Your task to perform on an android device: open app "AliExpress" (install if not already installed) and enter user name: "orangutan@inbox.com" and password: "Lyons" Image 0: 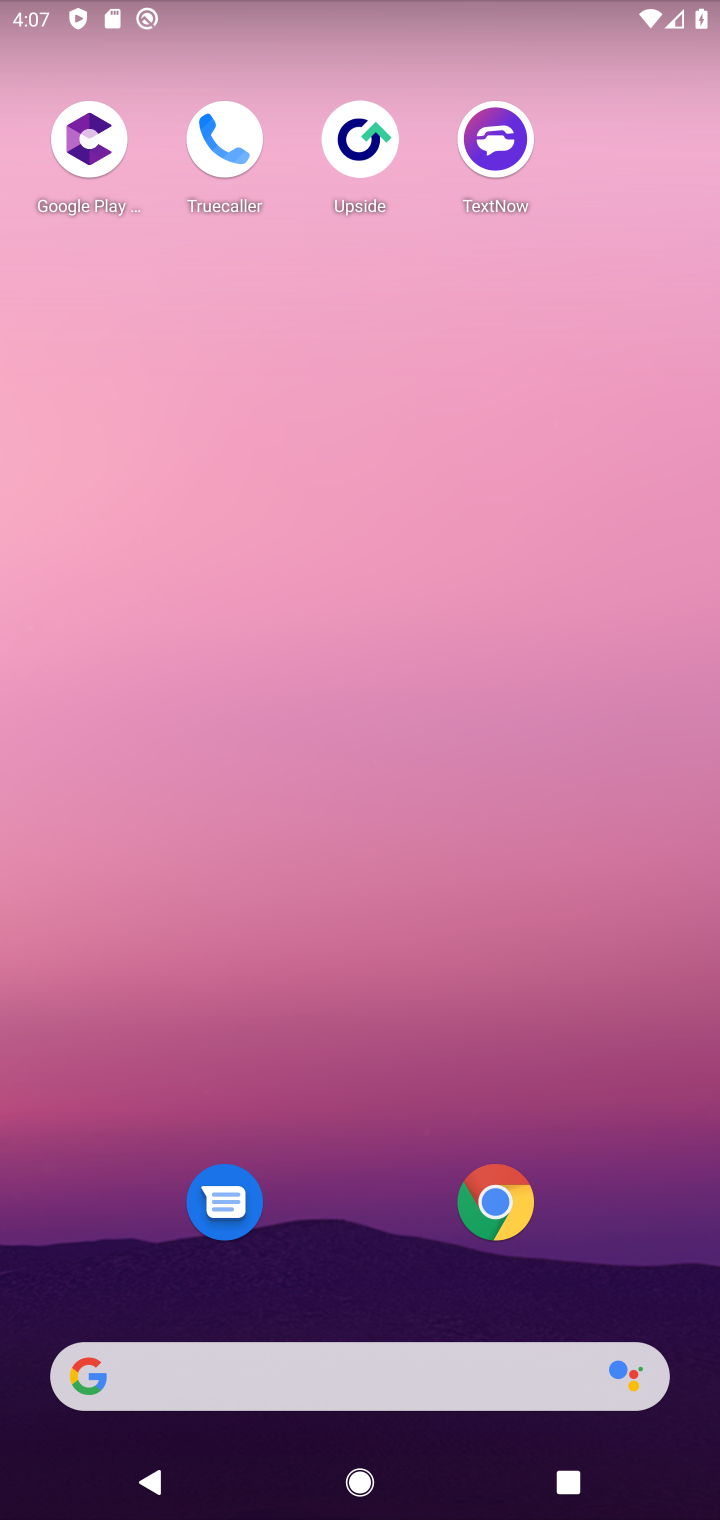
Step 0: drag from (274, 780) to (539, 0)
Your task to perform on an android device: open app "AliExpress" (install if not already installed) and enter user name: "orangutan@inbox.com" and password: "Lyons" Image 1: 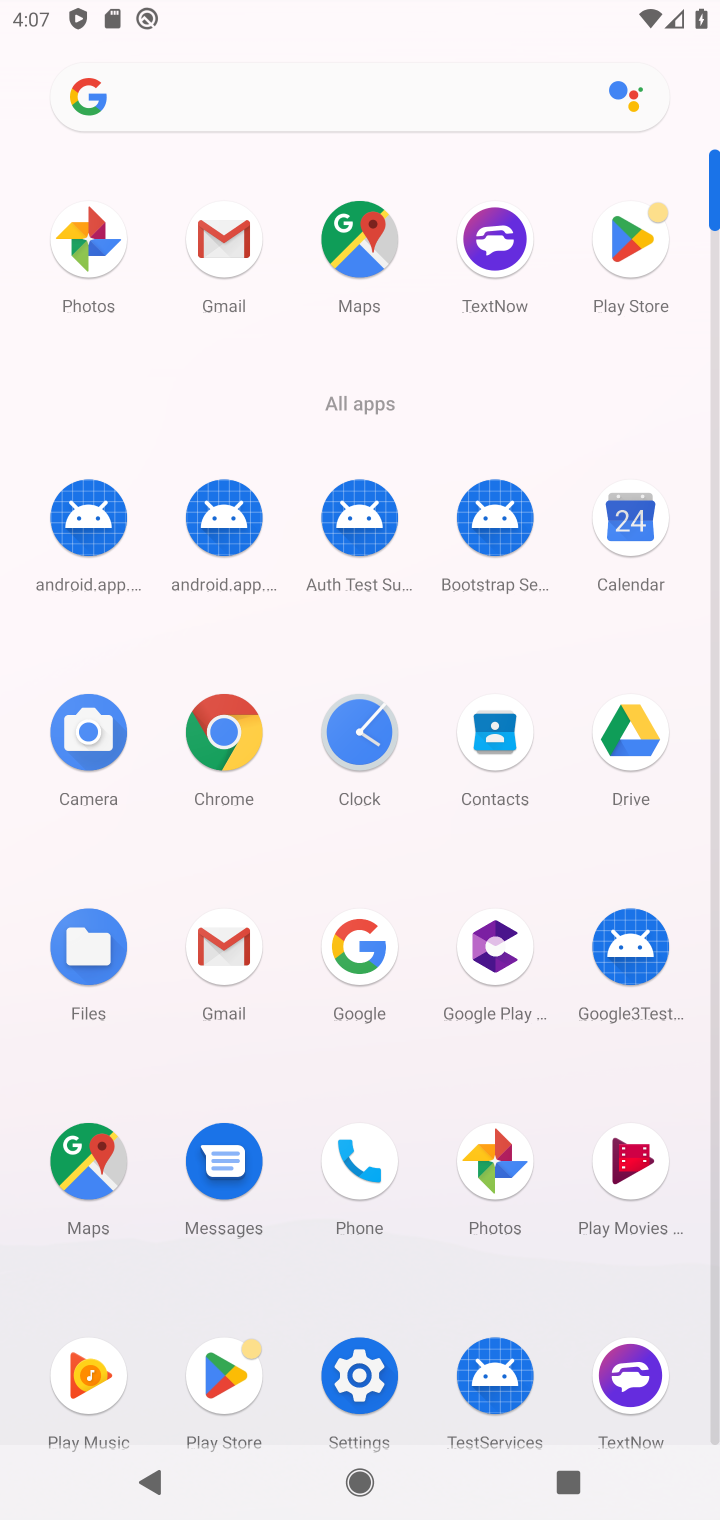
Step 1: click (635, 275)
Your task to perform on an android device: open app "AliExpress" (install if not already installed) and enter user name: "orangutan@inbox.com" and password: "Lyons" Image 2: 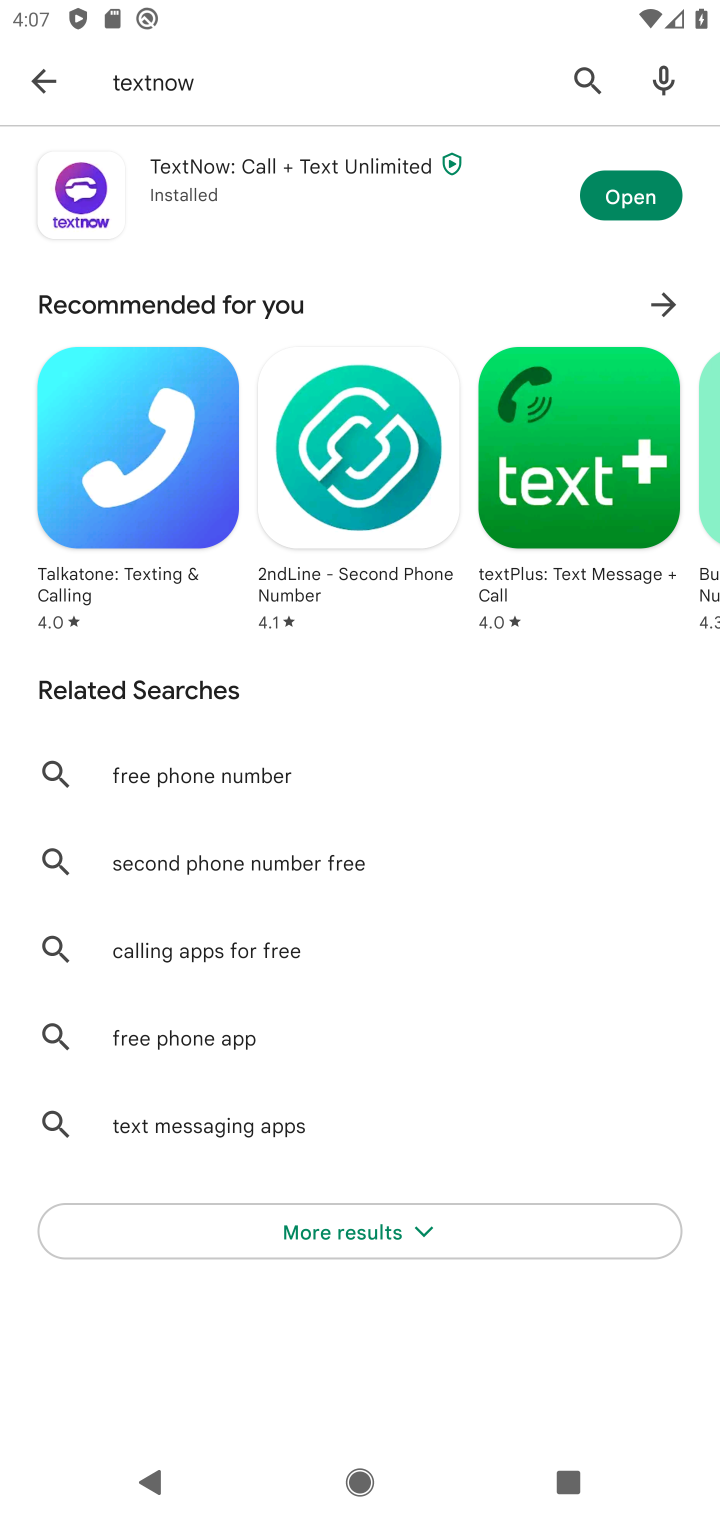
Step 2: click (238, 95)
Your task to perform on an android device: open app "AliExpress" (install if not already installed) and enter user name: "orangutan@inbox.com" and password: "Lyons" Image 3: 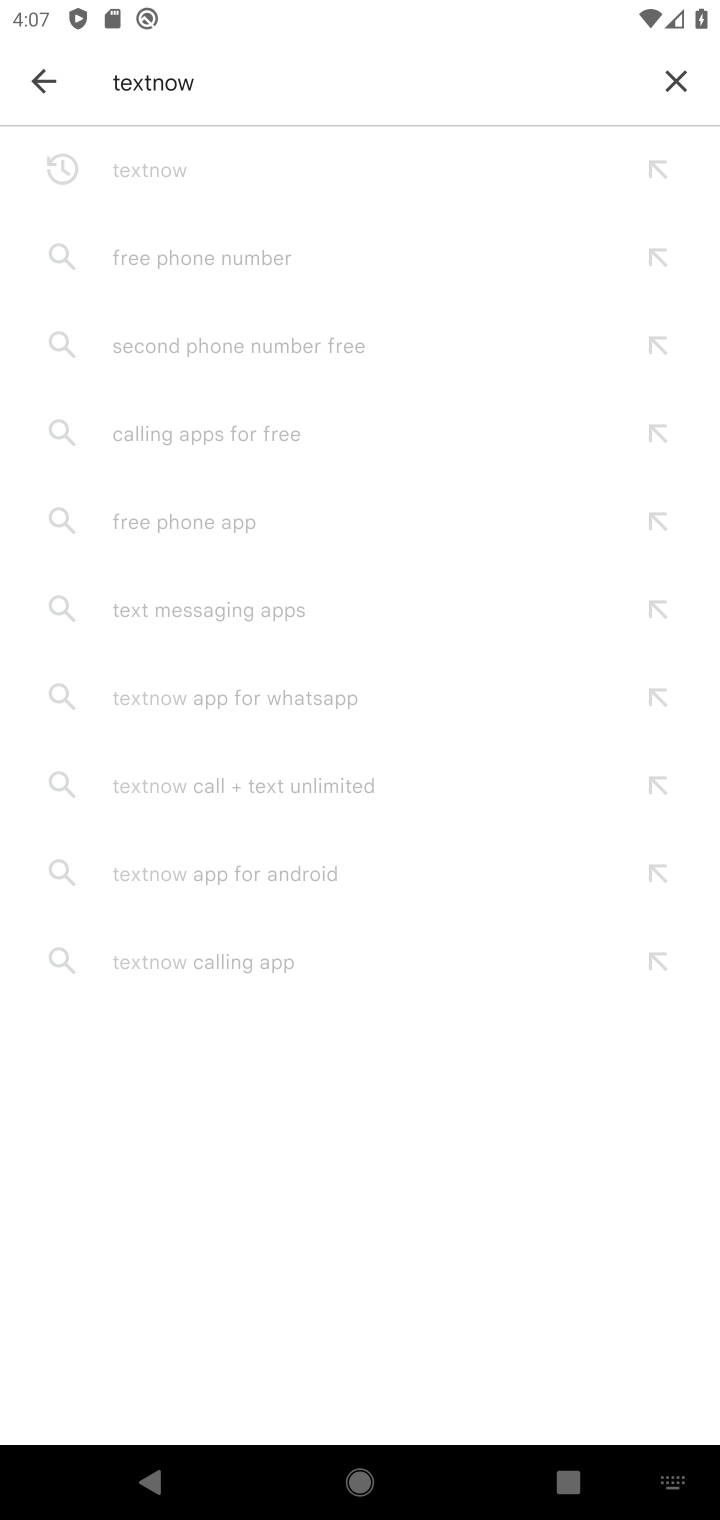
Step 3: click (683, 77)
Your task to perform on an android device: open app "AliExpress" (install if not already installed) and enter user name: "orangutan@inbox.com" and password: "Lyons" Image 4: 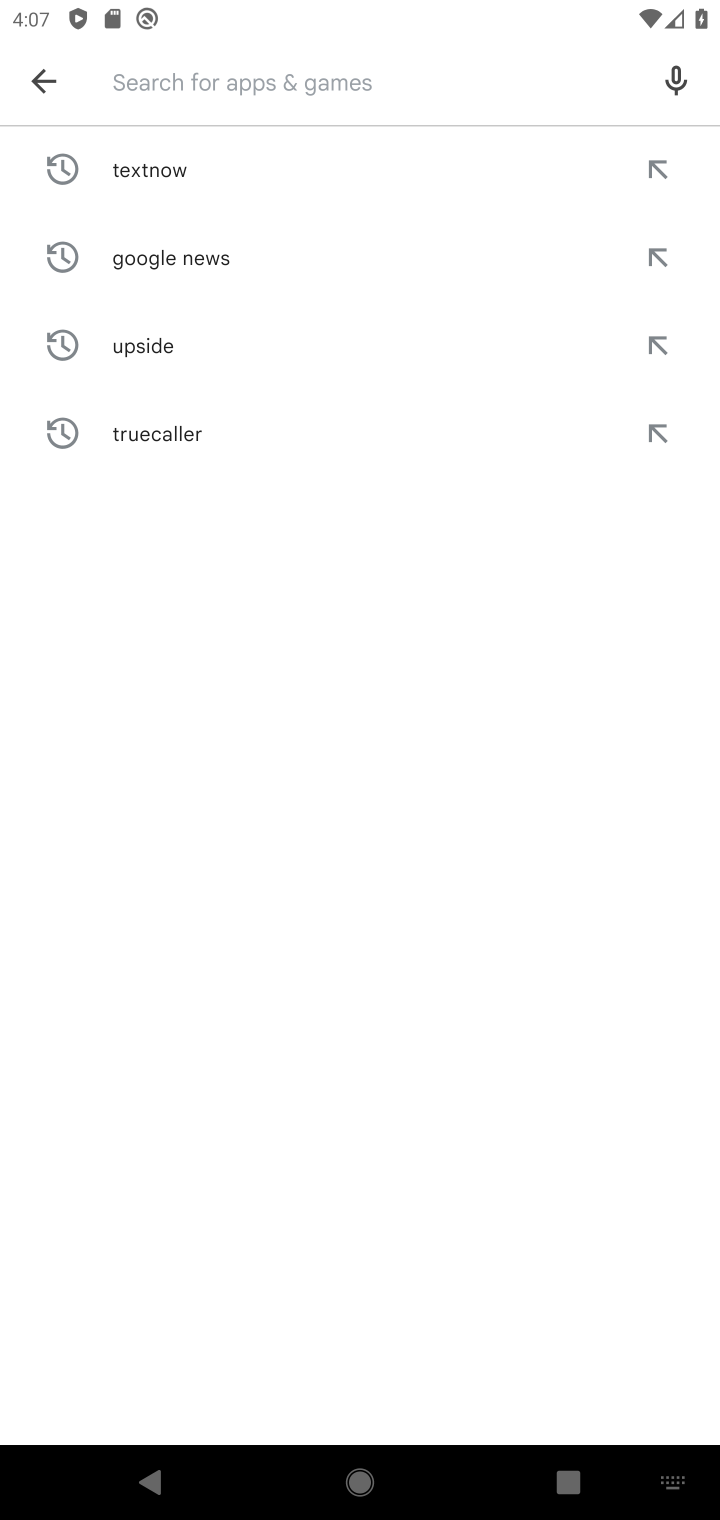
Step 4: type "Ali Express"
Your task to perform on an android device: open app "AliExpress" (install if not already installed) and enter user name: "orangutan@inbox.com" and password: "Lyons" Image 5: 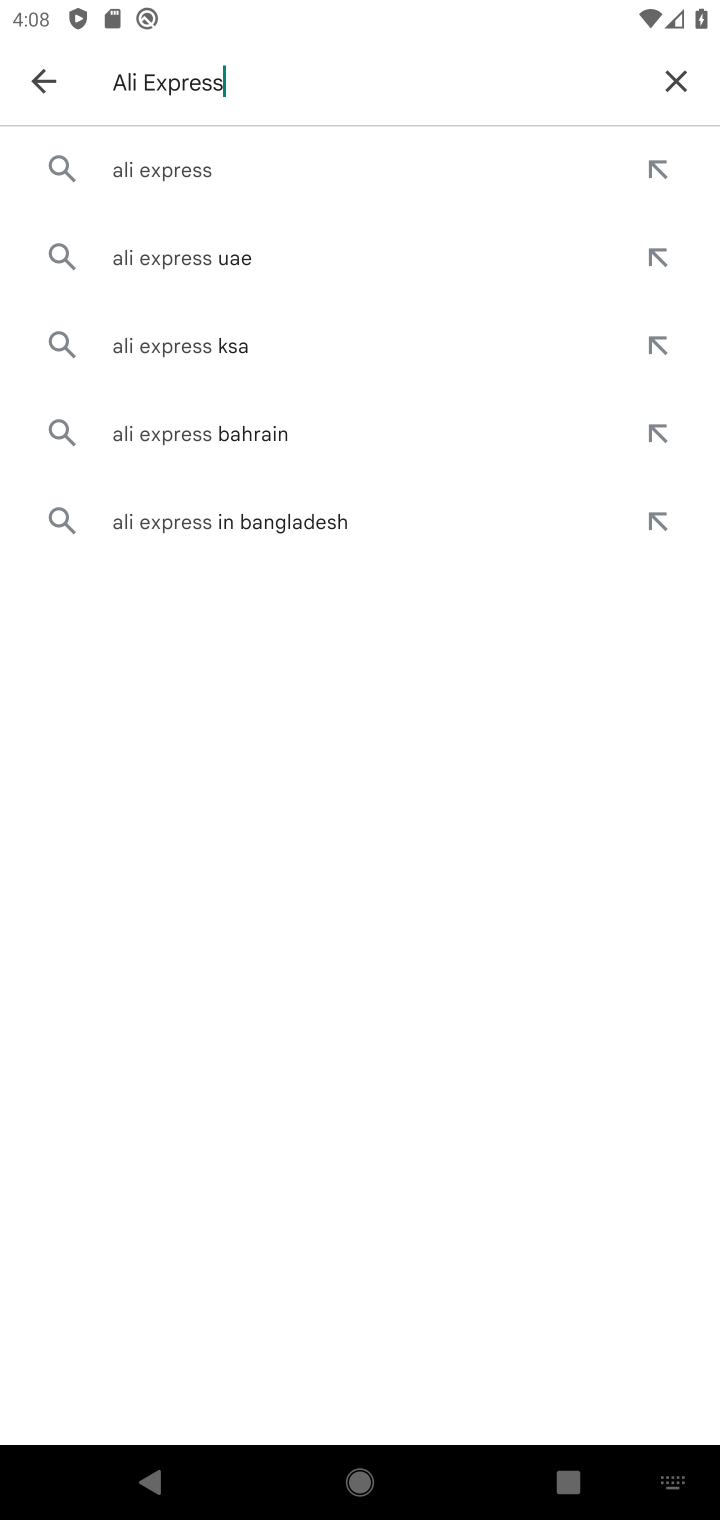
Step 5: click (225, 142)
Your task to perform on an android device: open app "AliExpress" (install if not already installed) and enter user name: "orangutan@inbox.com" and password: "Lyons" Image 6: 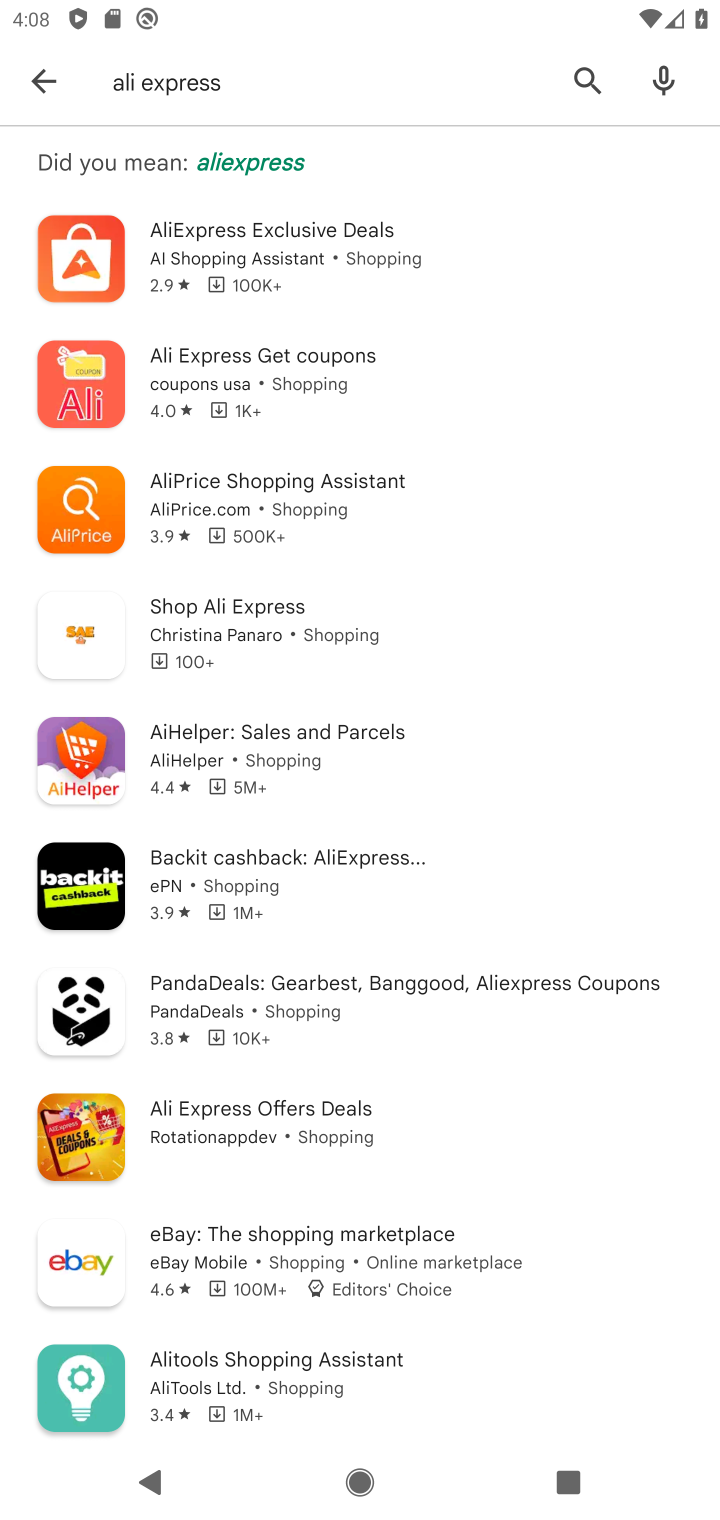
Step 6: click (252, 251)
Your task to perform on an android device: open app "AliExpress" (install if not already installed) and enter user name: "orangutan@inbox.com" and password: "Lyons" Image 7: 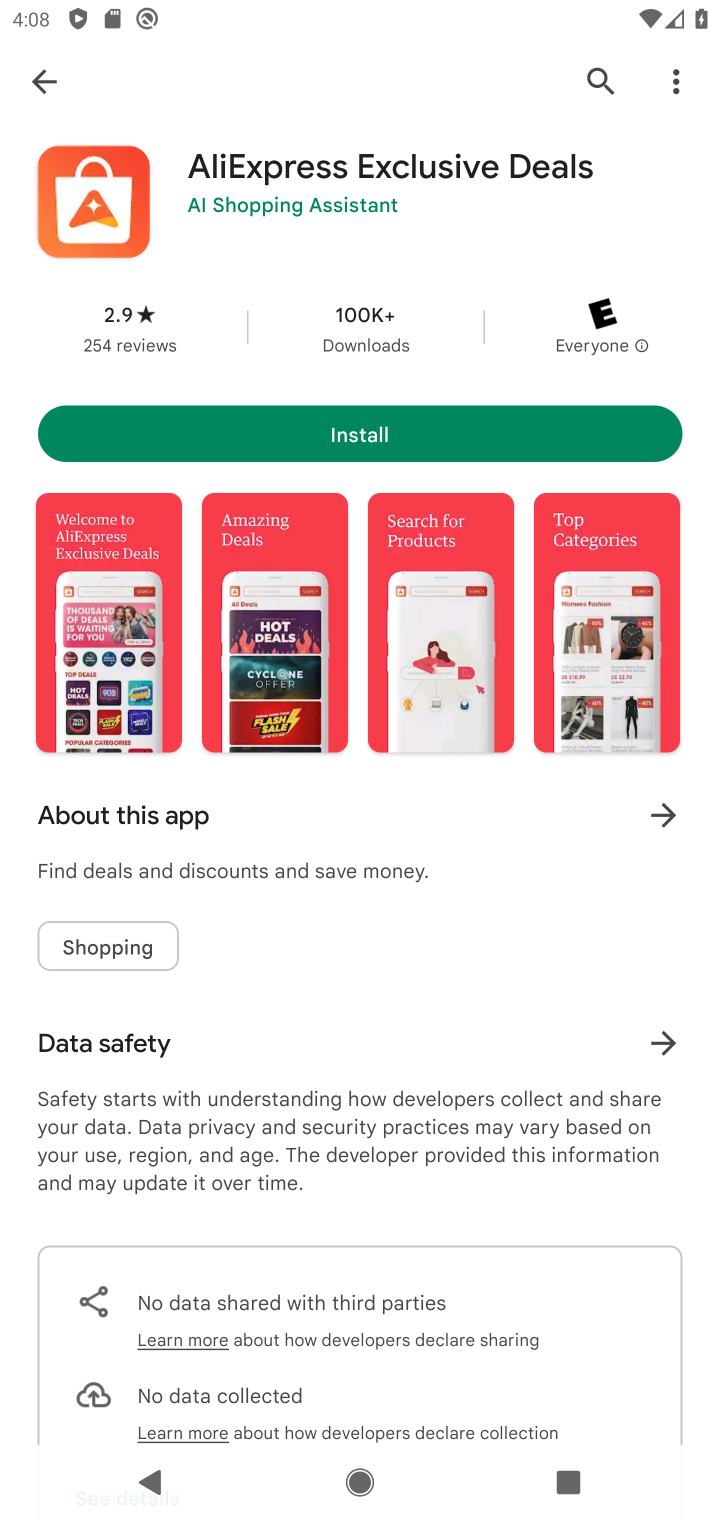
Step 7: click (367, 421)
Your task to perform on an android device: open app "AliExpress" (install if not already installed) and enter user name: "orangutan@inbox.com" and password: "Lyons" Image 8: 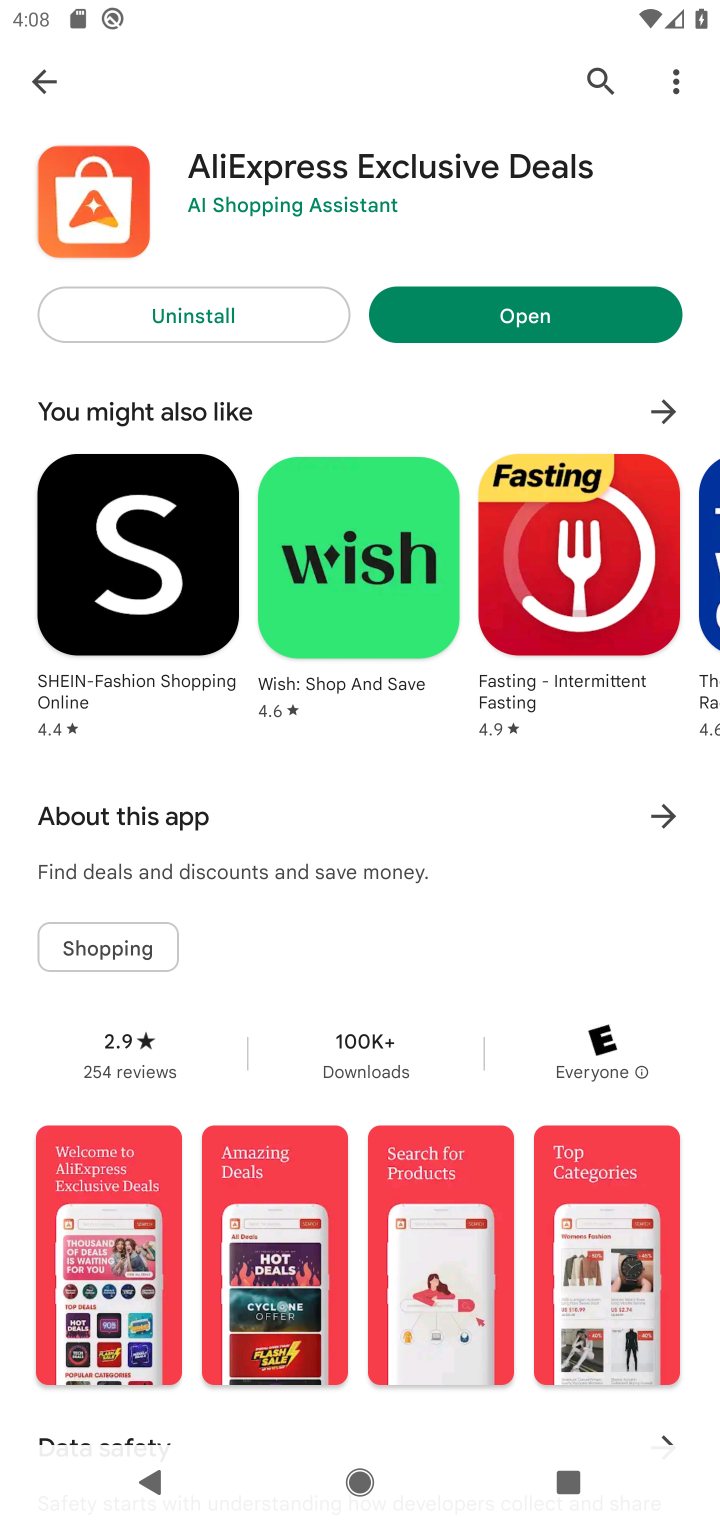
Step 8: click (467, 329)
Your task to perform on an android device: open app "AliExpress" (install if not already installed) and enter user name: "orangutan@inbox.com" and password: "Lyons" Image 9: 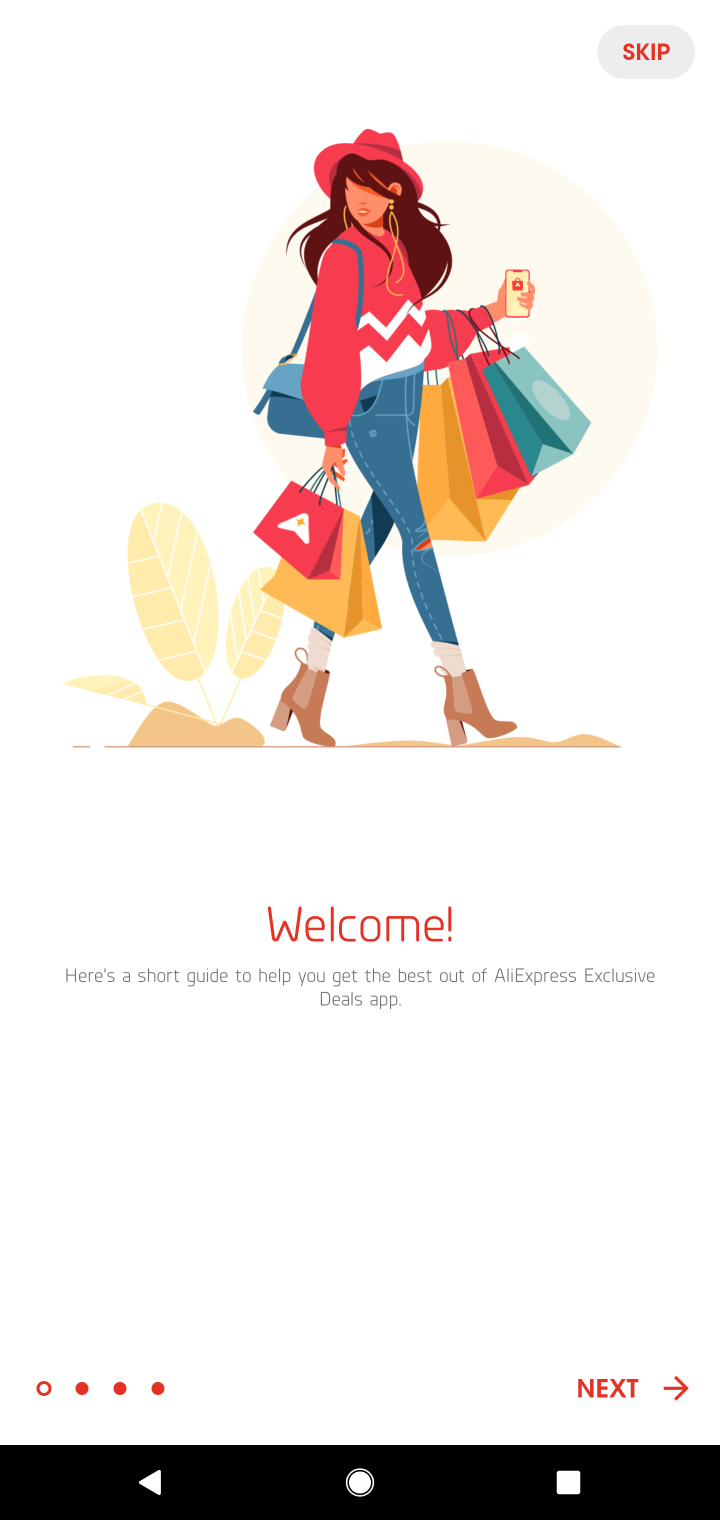
Step 9: click (618, 53)
Your task to perform on an android device: open app "AliExpress" (install if not already installed) and enter user name: "orangutan@inbox.com" and password: "Lyons" Image 10: 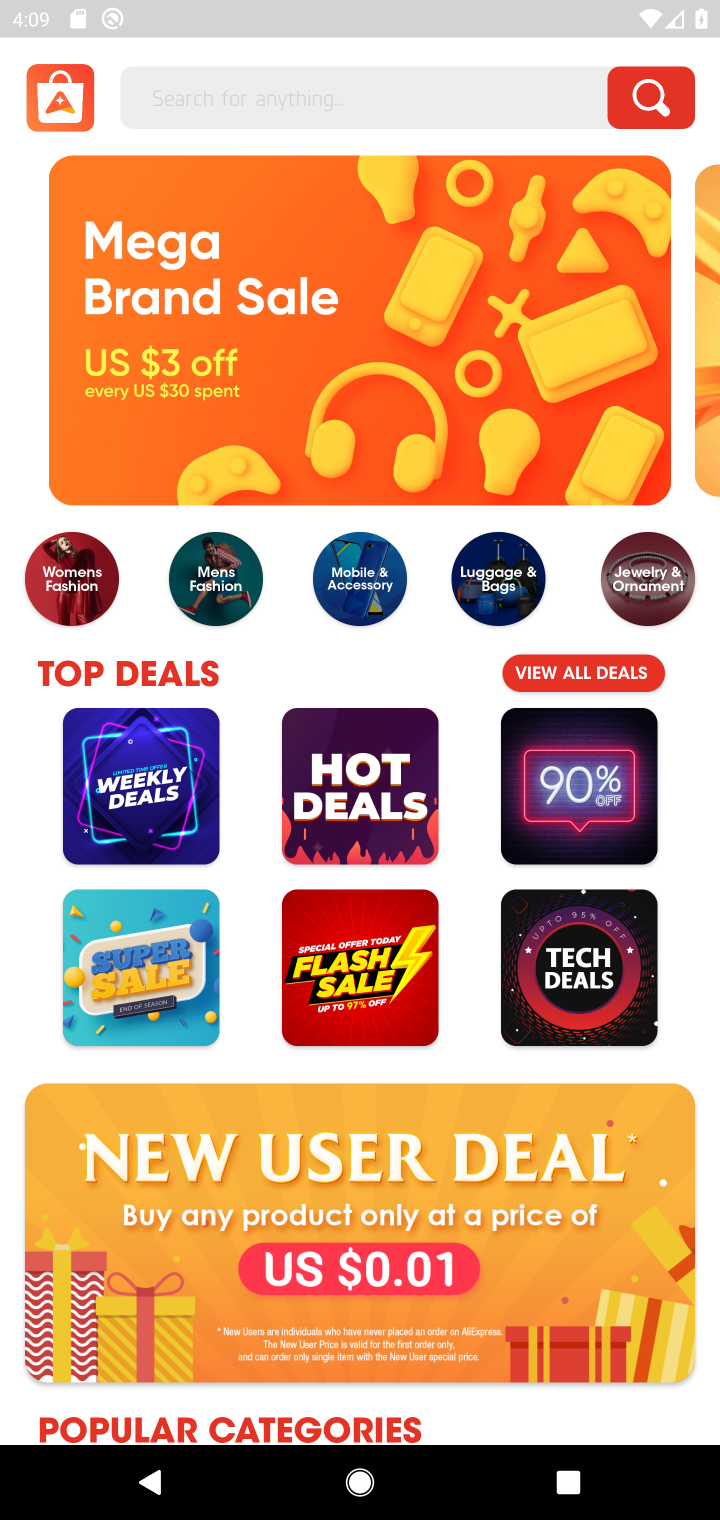
Step 10: click (69, 103)
Your task to perform on an android device: open app "AliExpress" (install if not already installed) and enter user name: "orangutan@inbox.com" and password: "Lyons" Image 11: 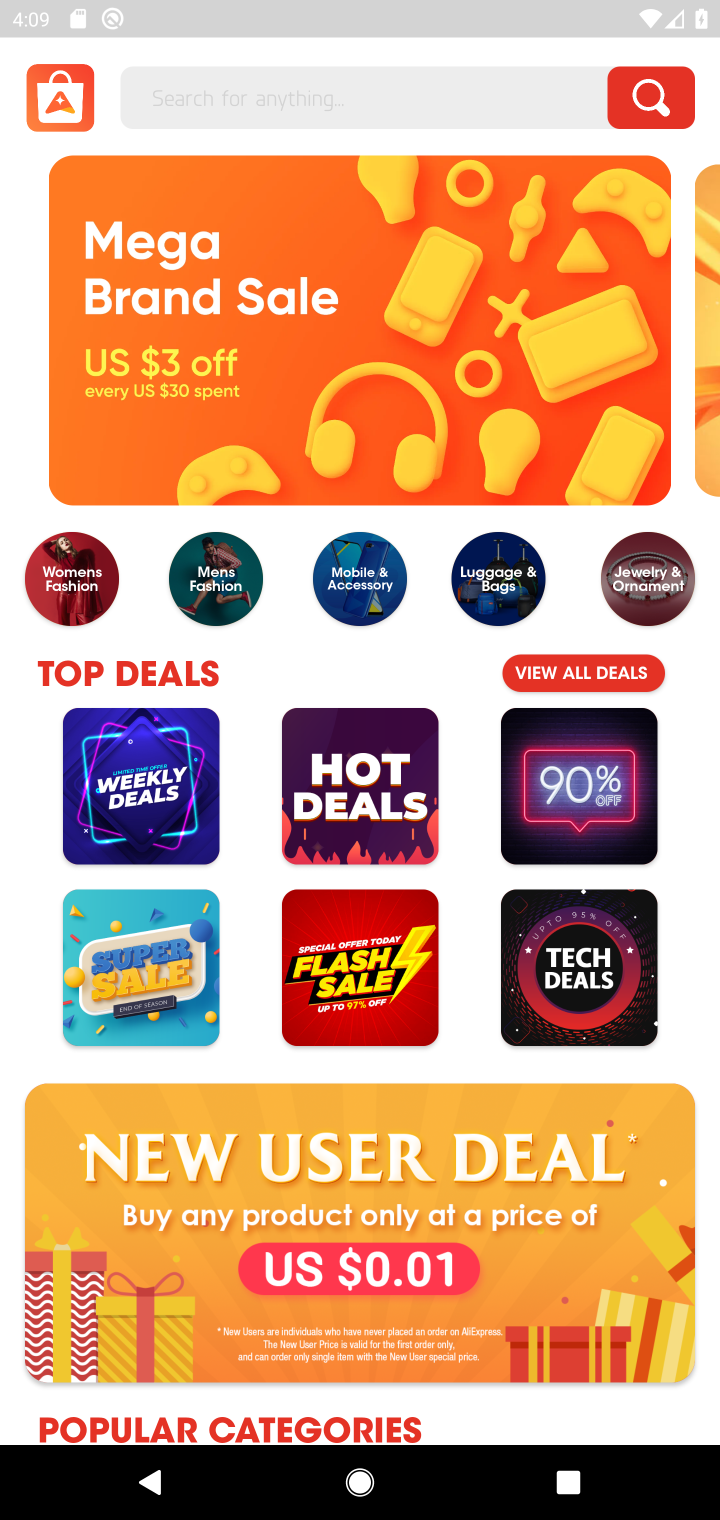
Step 11: click (54, 91)
Your task to perform on an android device: open app "AliExpress" (install if not already installed) and enter user name: "orangutan@inbox.com" and password: "Lyons" Image 12: 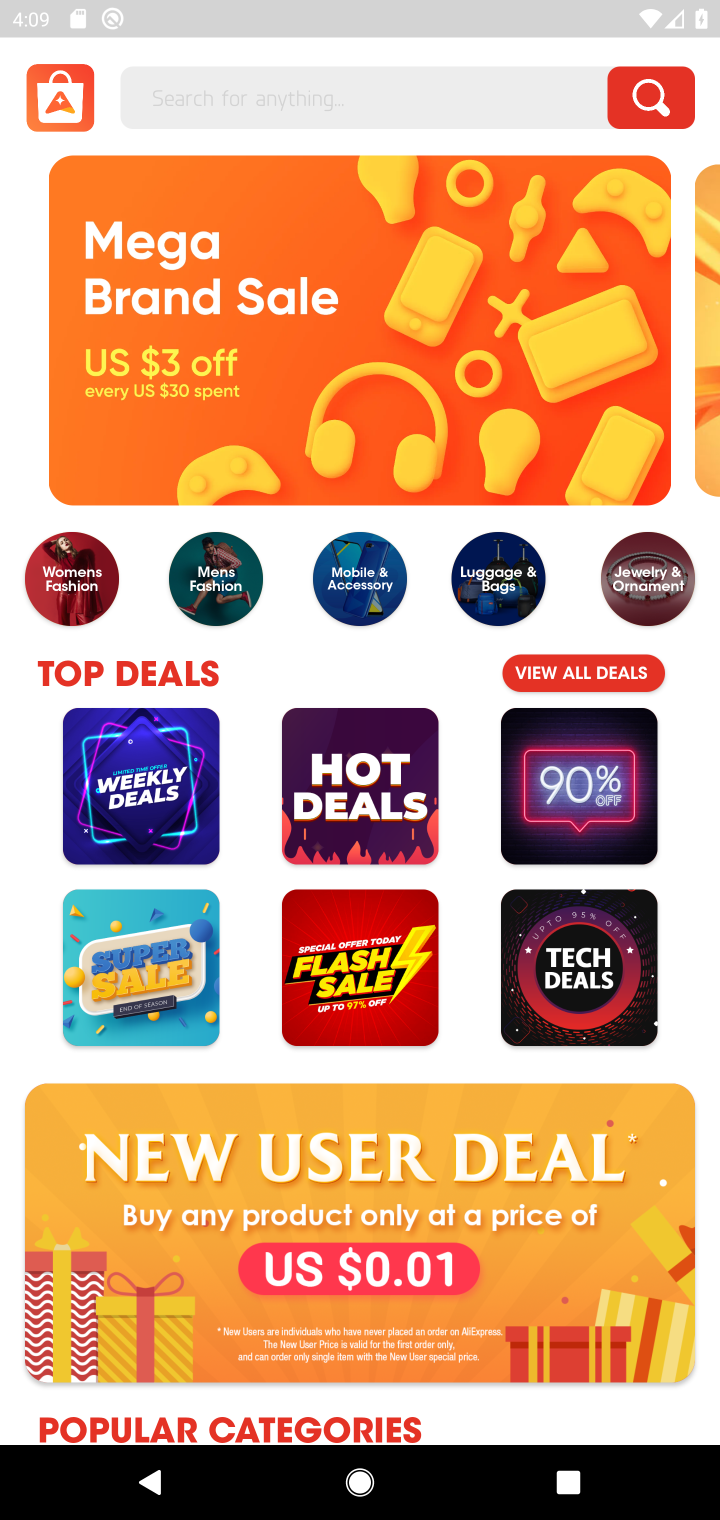
Step 12: task complete